Your task to perform on an android device: Open Youtube and go to the subscriptions tab Image 0: 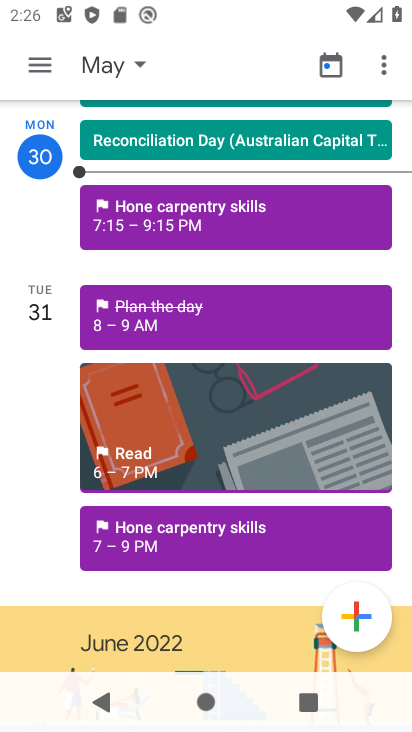
Step 0: press home button
Your task to perform on an android device: Open Youtube and go to the subscriptions tab Image 1: 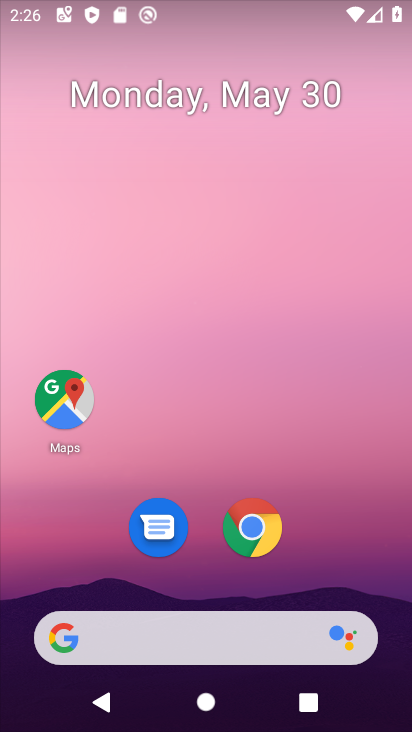
Step 1: drag from (339, 598) to (368, 148)
Your task to perform on an android device: Open Youtube and go to the subscriptions tab Image 2: 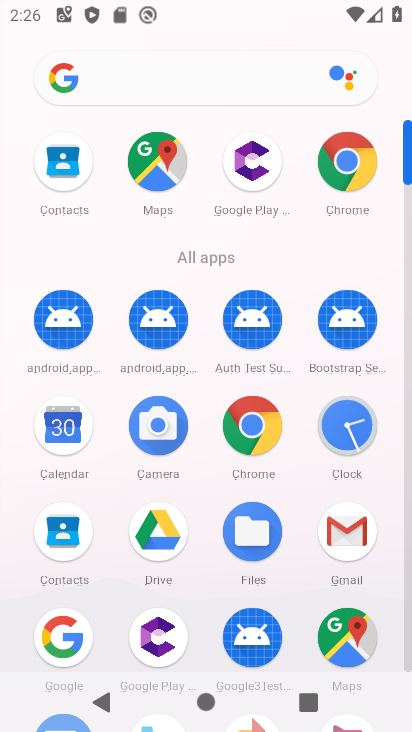
Step 2: drag from (310, 269) to (312, 44)
Your task to perform on an android device: Open Youtube and go to the subscriptions tab Image 3: 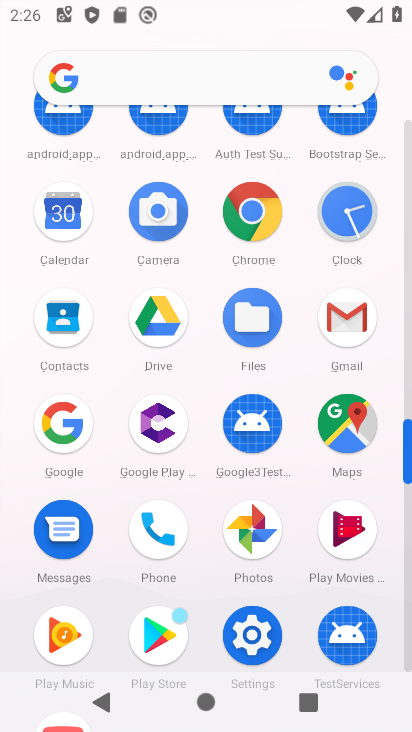
Step 3: drag from (301, 279) to (318, 85)
Your task to perform on an android device: Open Youtube and go to the subscriptions tab Image 4: 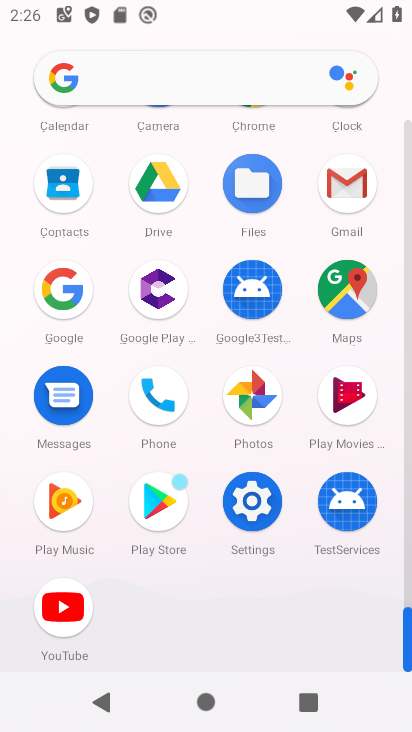
Step 4: click (64, 604)
Your task to perform on an android device: Open Youtube and go to the subscriptions tab Image 5: 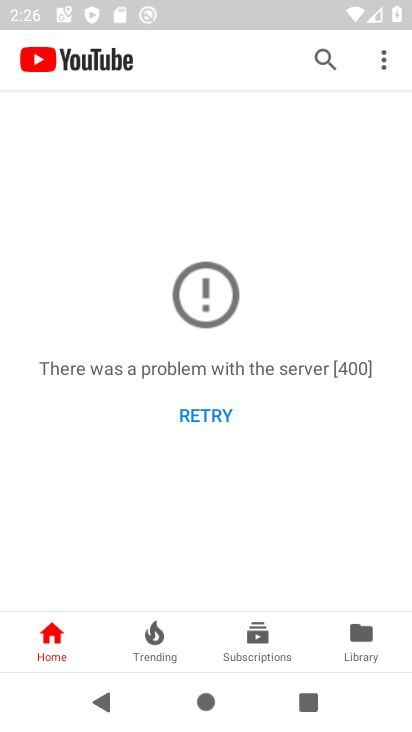
Step 5: click (260, 634)
Your task to perform on an android device: Open Youtube and go to the subscriptions tab Image 6: 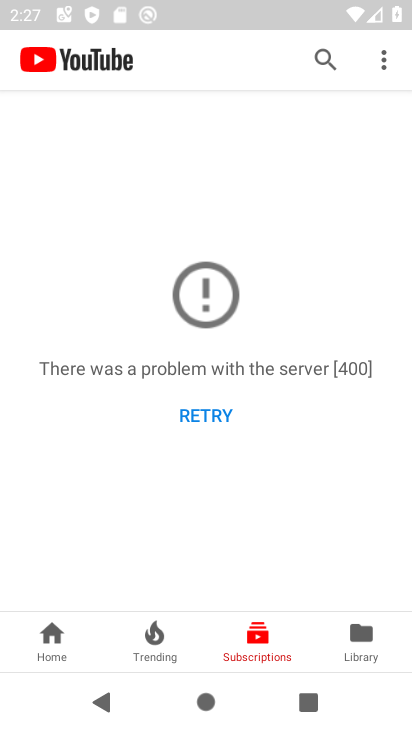
Step 6: task complete